Your task to perform on an android device: Search for seafood restaurants on Google Maps Image 0: 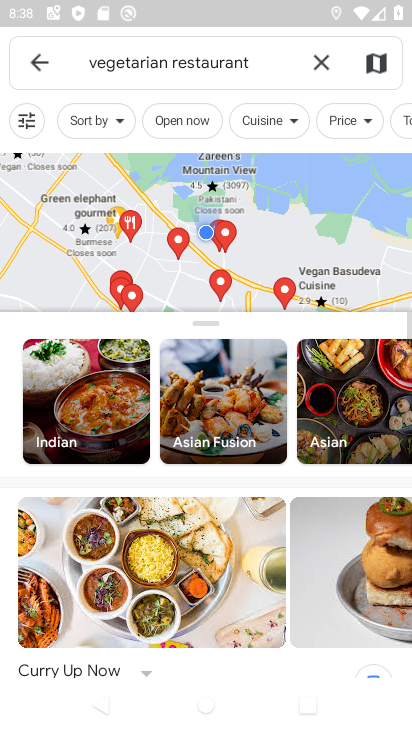
Step 0: press home button
Your task to perform on an android device: Search for seafood restaurants on Google Maps Image 1: 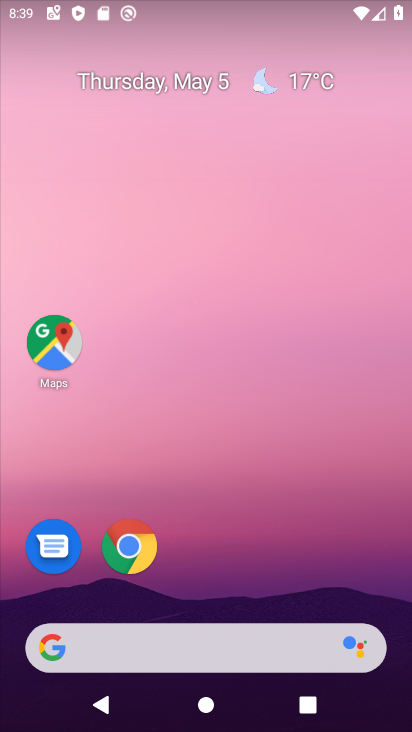
Step 1: drag from (209, 647) to (299, 211)
Your task to perform on an android device: Search for seafood restaurants on Google Maps Image 2: 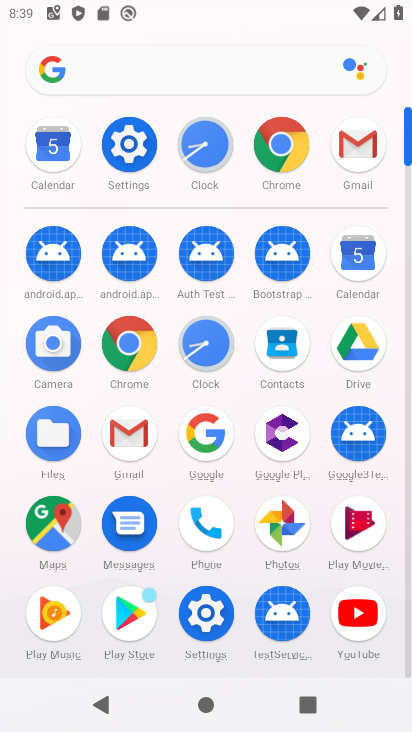
Step 2: click (50, 528)
Your task to perform on an android device: Search for seafood restaurants on Google Maps Image 3: 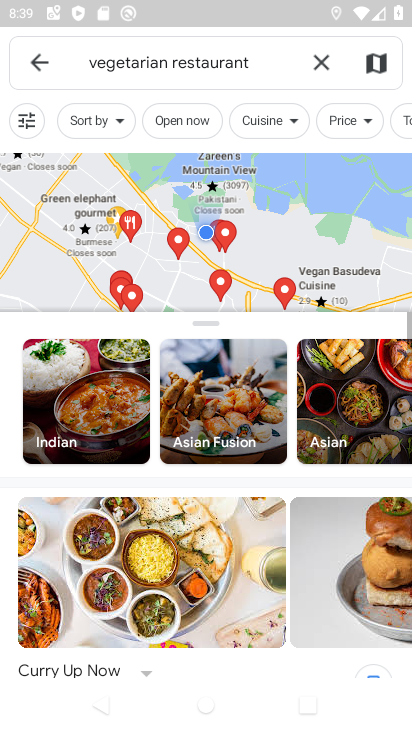
Step 3: click (321, 66)
Your task to perform on an android device: Search for seafood restaurants on Google Maps Image 4: 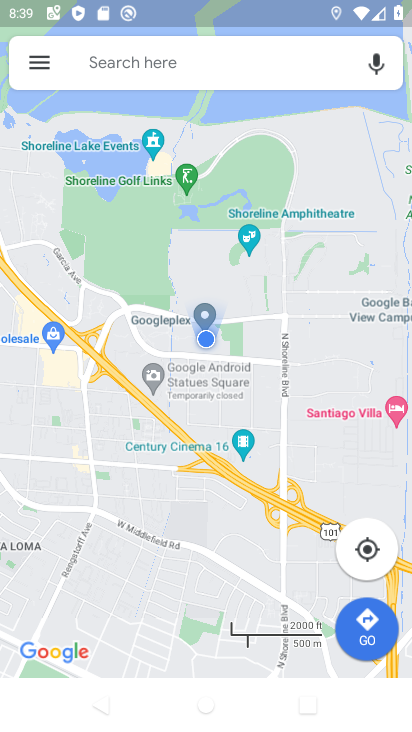
Step 4: click (176, 69)
Your task to perform on an android device: Search for seafood restaurants on Google Maps Image 5: 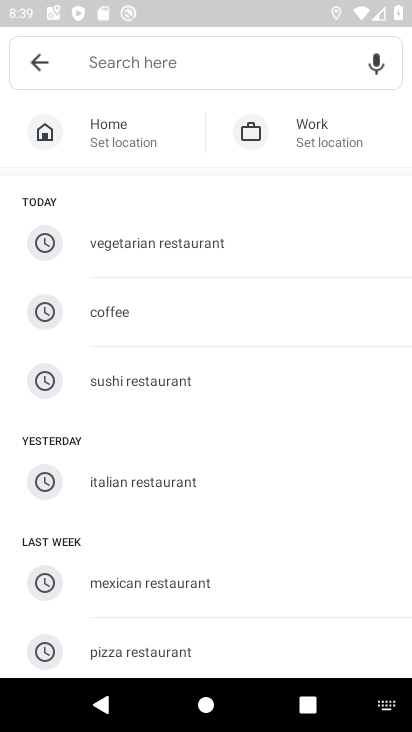
Step 5: drag from (195, 583) to (294, 298)
Your task to perform on an android device: Search for seafood restaurants on Google Maps Image 6: 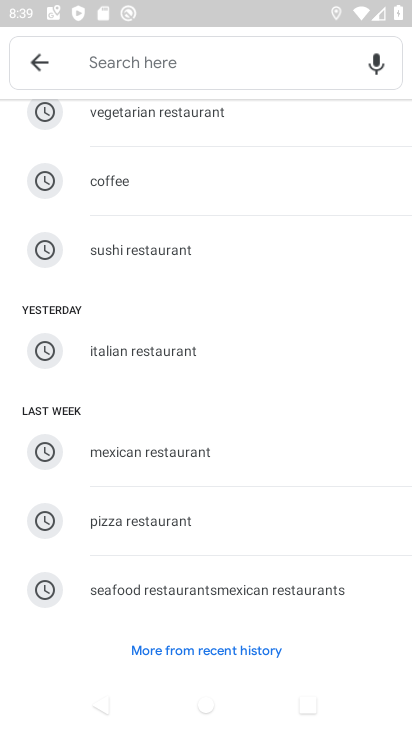
Step 6: click (158, 60)
Your task to perform on an android device: Search for seafood restaurants on Google Maps Image 7: 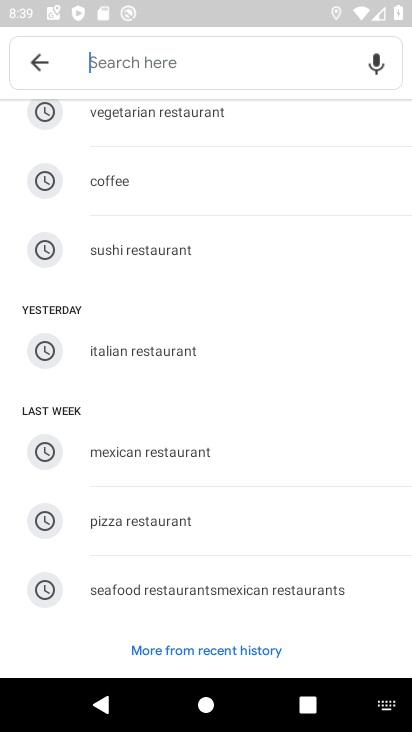
Step 7: type "seafood restaurants"
Your task to perform on an android device: Search for seafood restaurants on Google Maps Image 8: 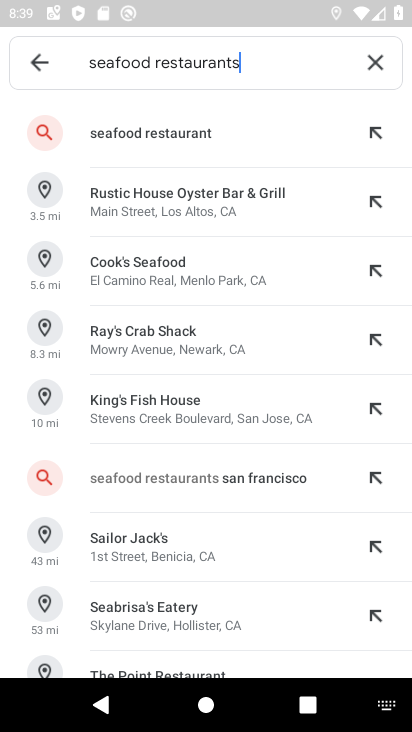
Step 8: click (224, 138)
Your task to perform on an android device: Search for seafood restaurants on Google Maps Image 9: 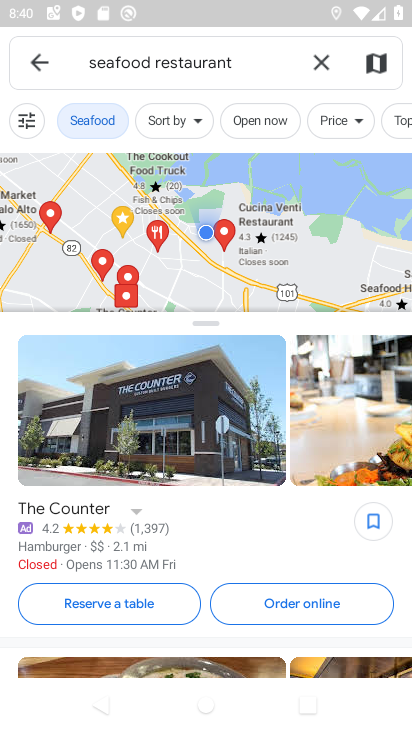
Step 9: task complete